Your task to perform on an android device: choose inbox layout in the gmail app Image 0: 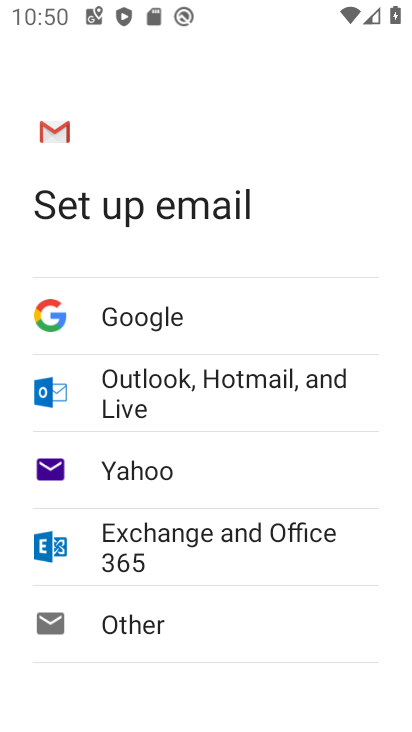
Step 0: press home button
Your task to perform on an android device: choose inbox layout in the gmail app Image 1: 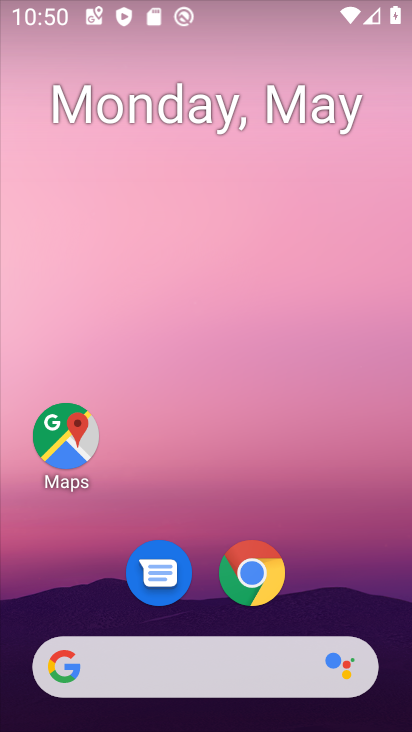
Step 1: drag from (325, 447) to (231, 74)
Your task to perform on an android device: choose inbox layout in the gmail app Image 2: 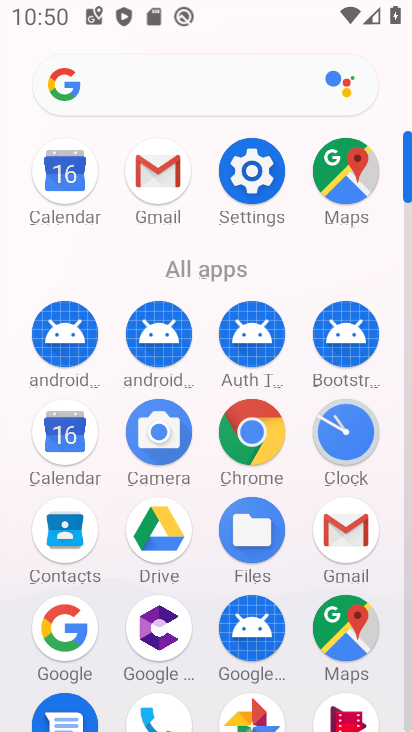
Step 2: click (160, 177)
Your task to perform on an android device: choose inbox layout in the gmail app Image 3: 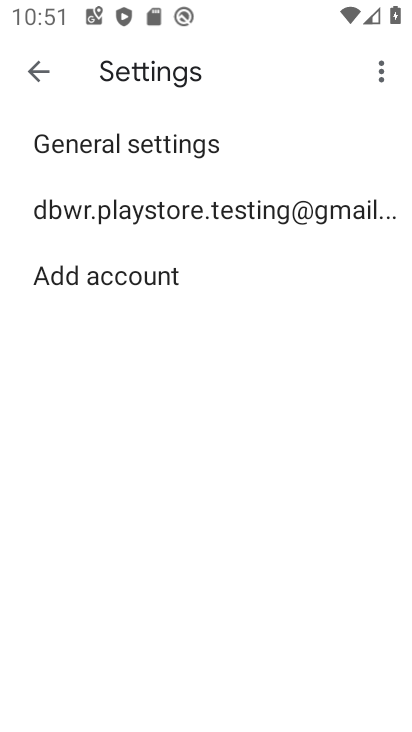
Step 3: click (192, 218)
Your task to perform on an android device: choose inbox layout in the gmail app Image 4: 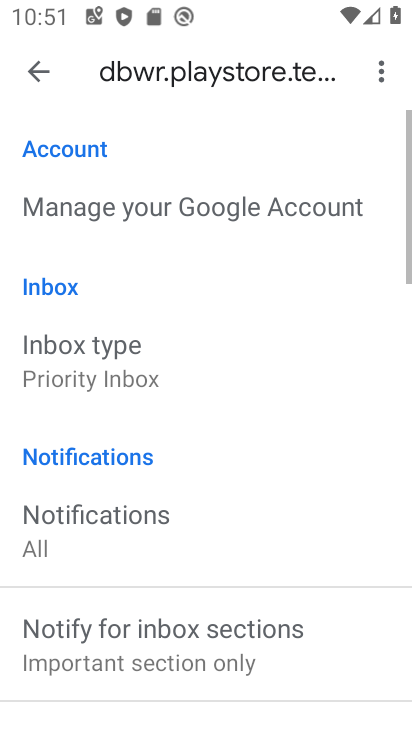
Step 4: click (135, 374)
Your task to perform on an android device: choose inbox layout in the gmail app Image 5: 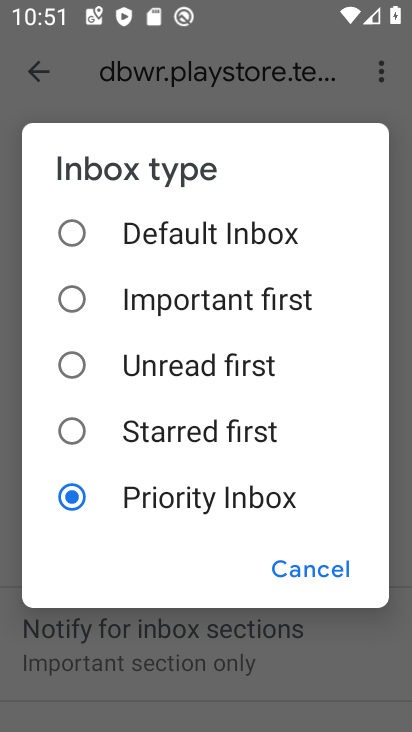
Step 5: click (228, 442)
Your task to perform on an android device: choose inbox layout in the gmail app Image 6: 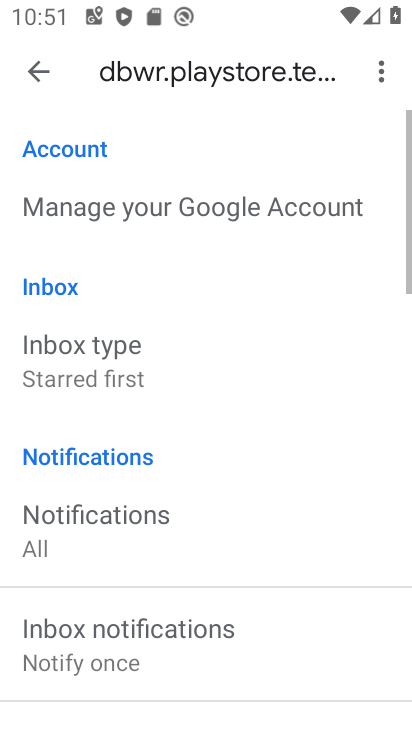
Step 6: task complete